Your task to perform on an android device: open app "Skype" Image 0: 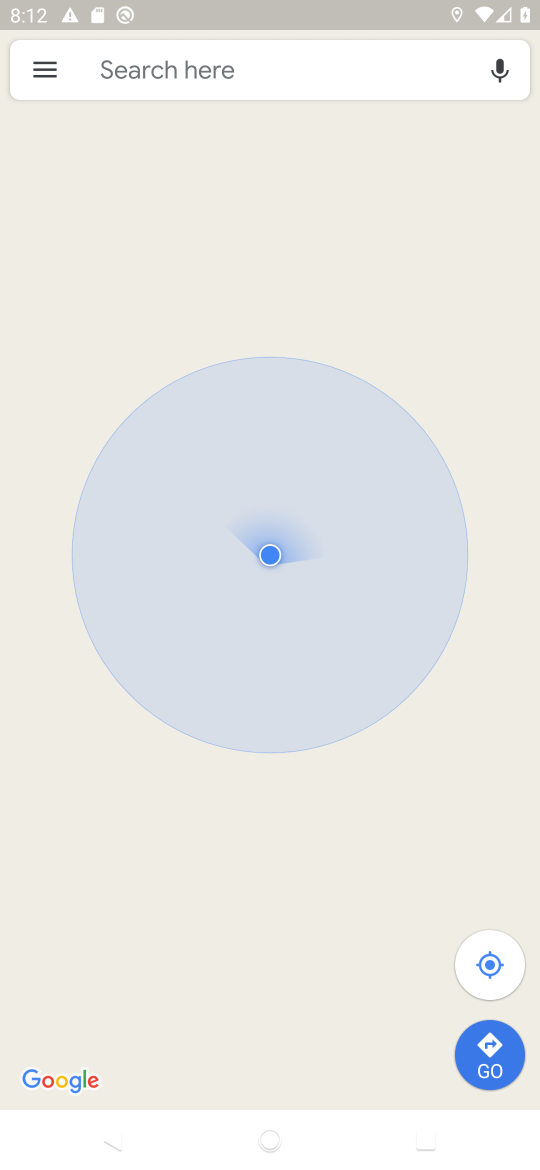
Step 0: press home button
Your task to perform on an android device: open app "Skype" Image 1: 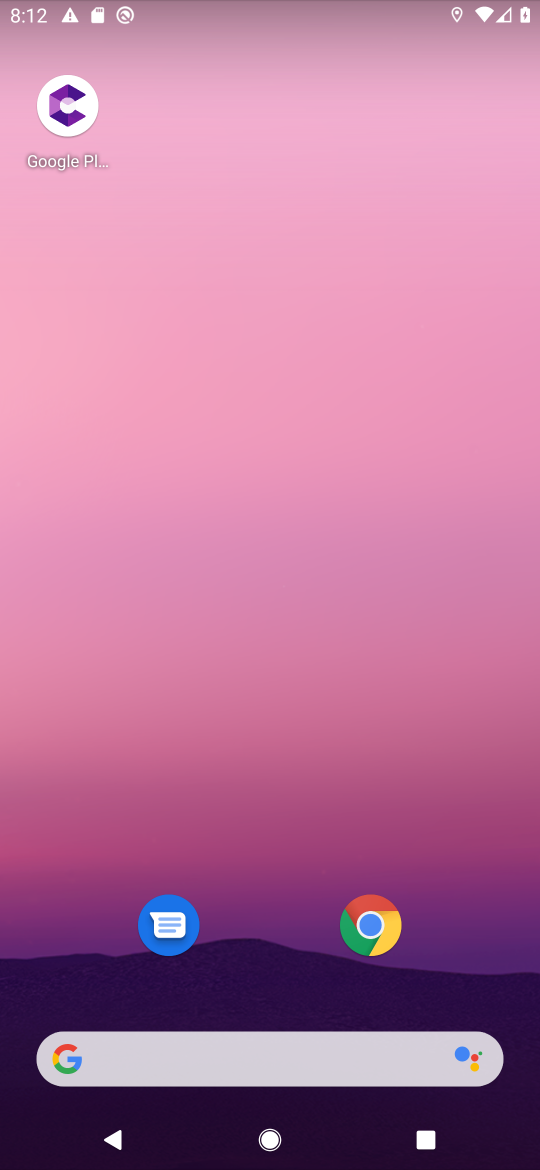
Step 1: drag from (244, 963) to (323, 8)
Your task to perform on an android device: open app "Skype" Image 2: 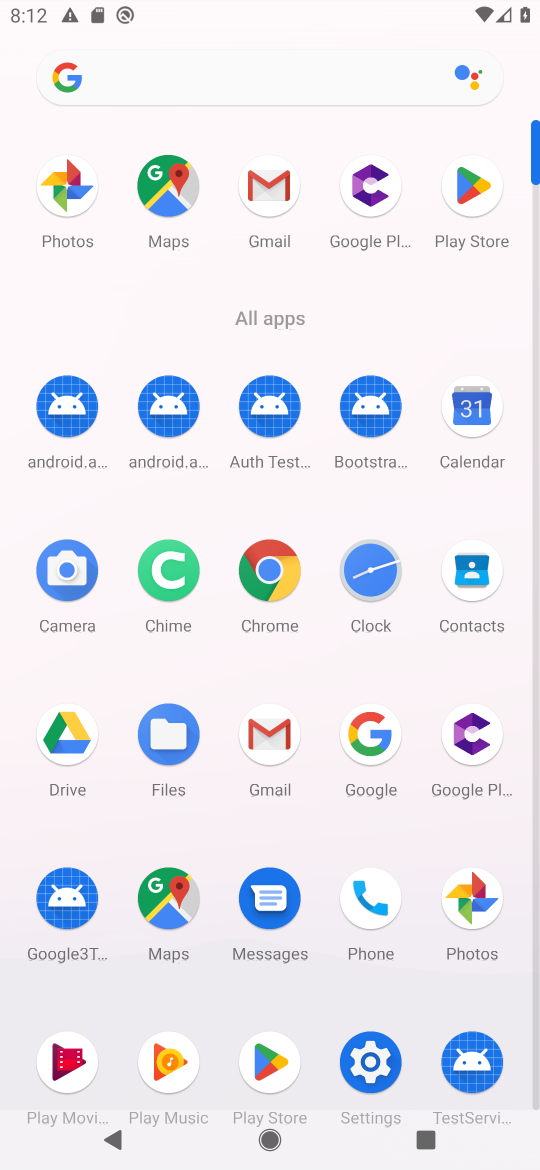
Step 2: click (469, 163)
Your task to perform on an android device: open app "Skype" Image 3: 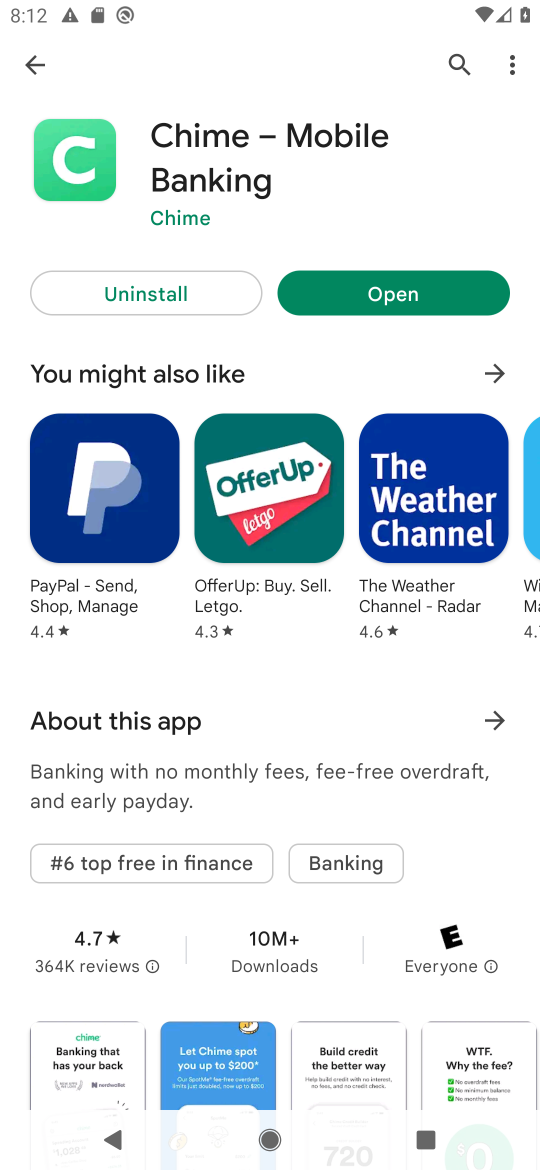
Step 3: click (468, 71)
Your task to perform on an android device: open app "Skype" Image 4: 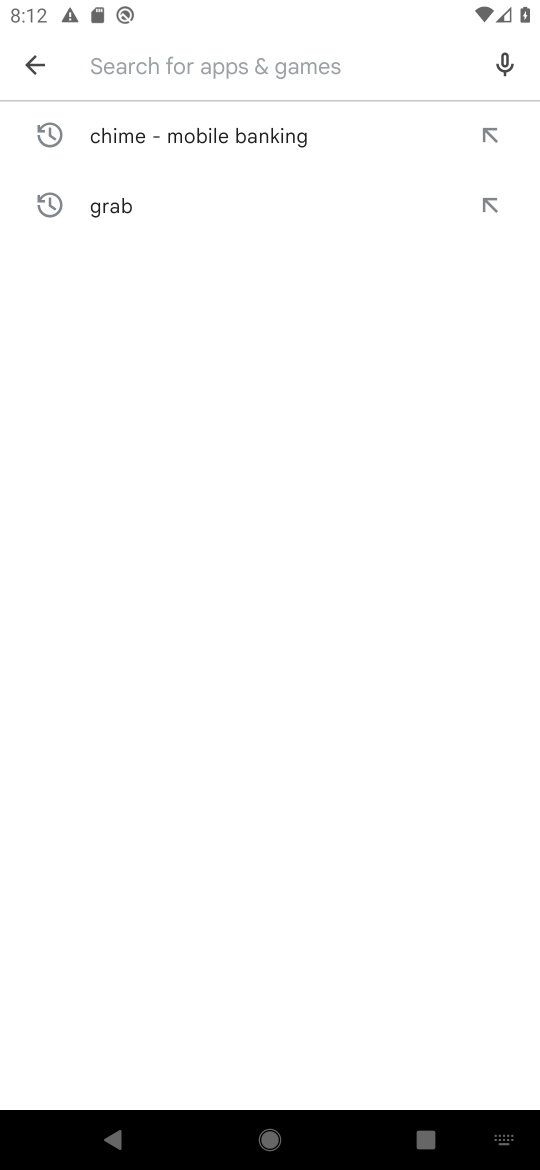
Step 4: type "skype"
Your task to perform on an android device: open app "Skype" Image 5: 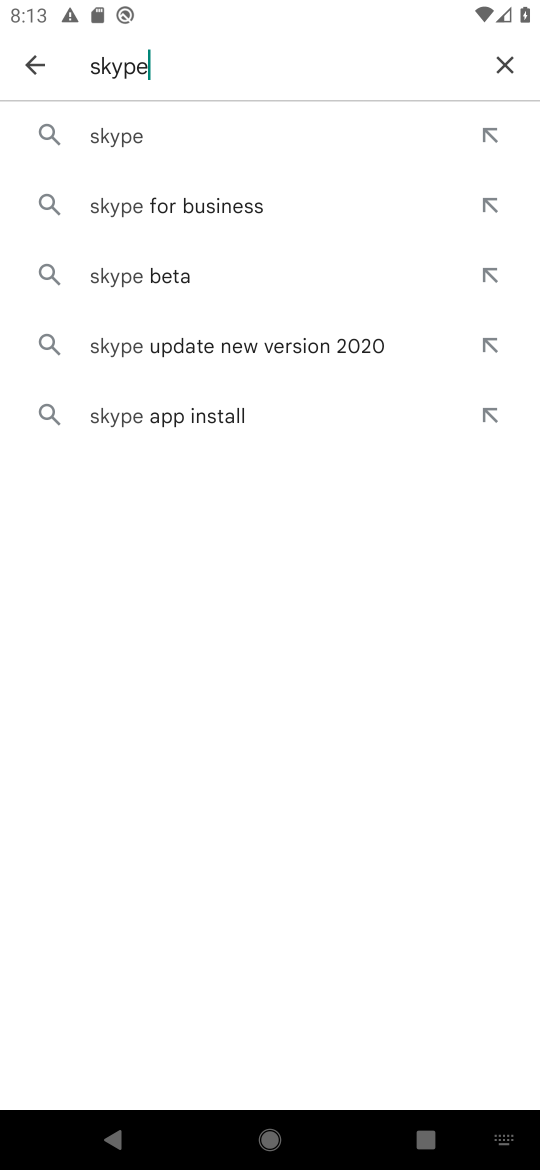
Step 5: click (298, 134)
Your task to perform on an android device: open app "Skype" Image 6: 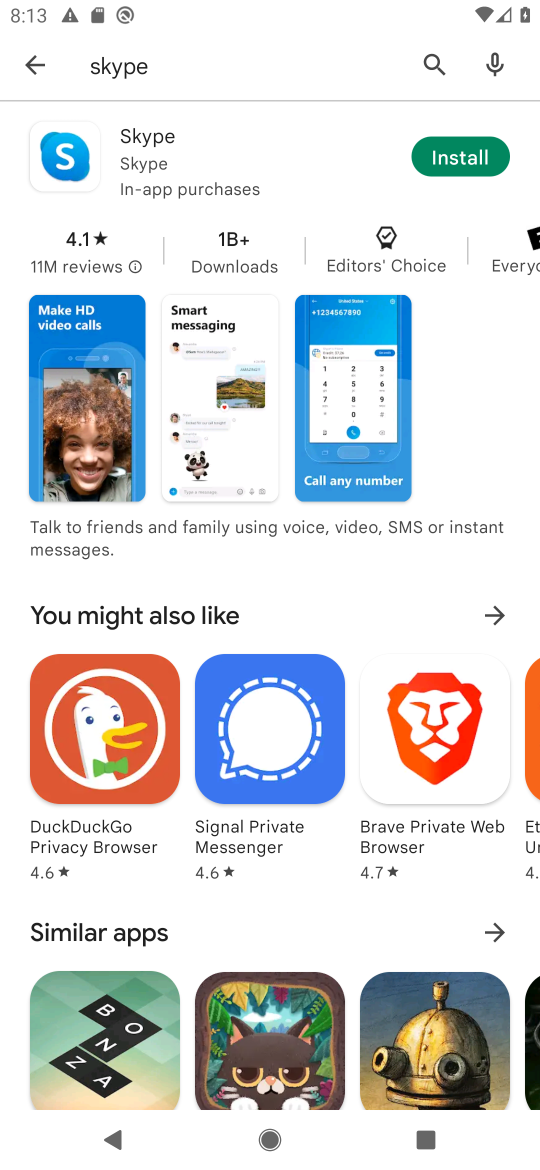
Step 6: click (157, 137)
Your task to perform on an android device: open app "Skype" Image 7: 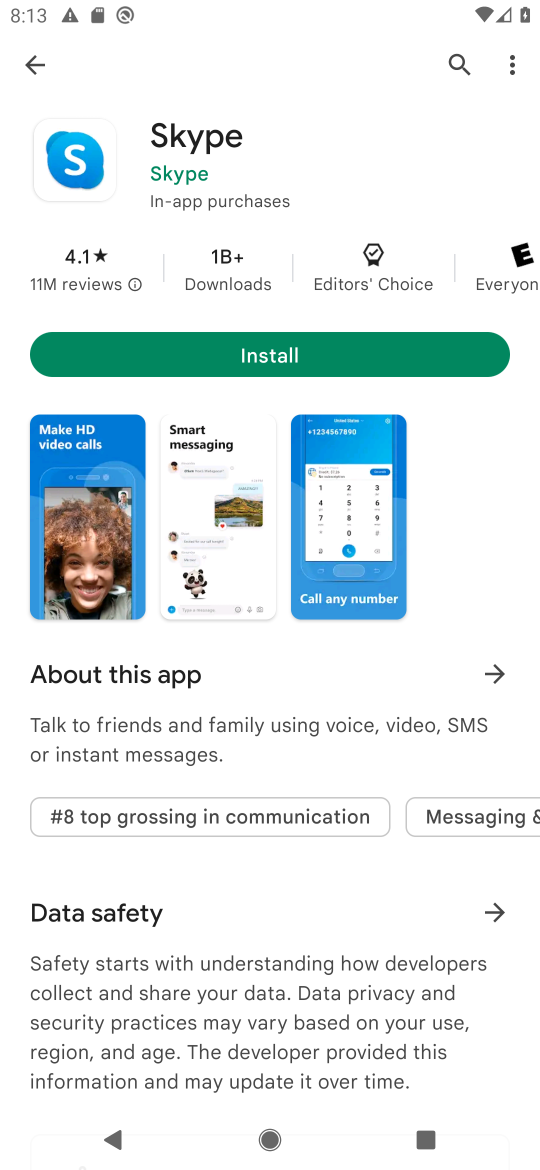
Step 7: task complete